Your task to perform on an android device: Go to accessibility settings Image 0: 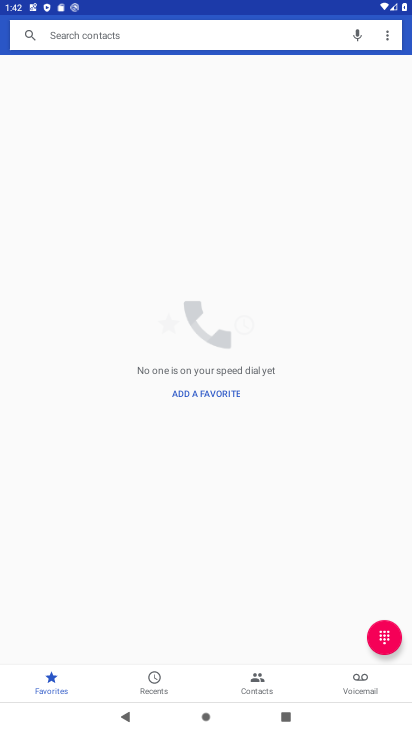
Step 0: press home button
Your task to perform on an android device: Go to accessibility settings Image 1: 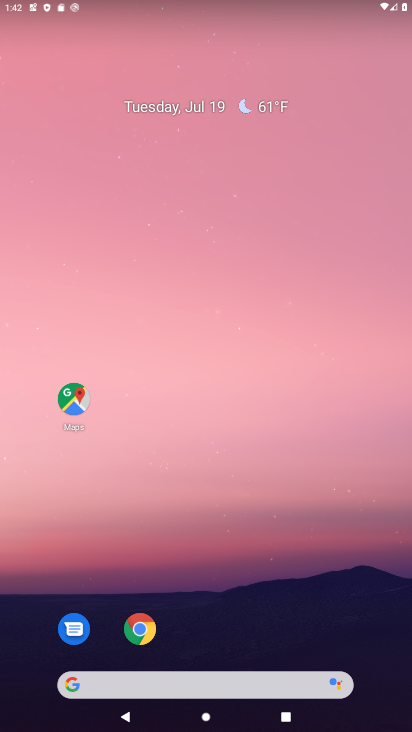
Step 1: drag from (204, 687) to (125, 0)
Your task to perform on an android device: Go to accessibility settings Image 2: 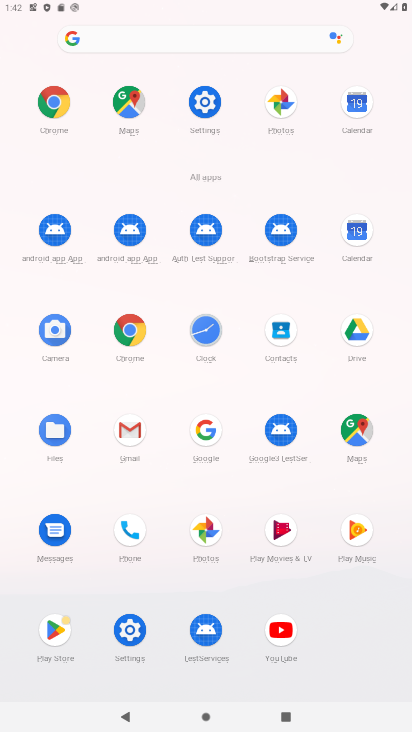
Step 2: click (127, 628)
Your task to perform on an android device: Go to accessibility settings Image 3: 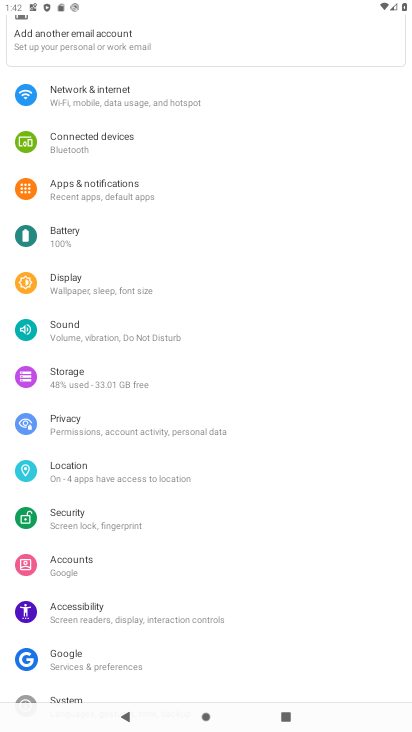
Step 3: click (100, 608)
Your task to perform on an android device: Go to accessibility settings Image 4: 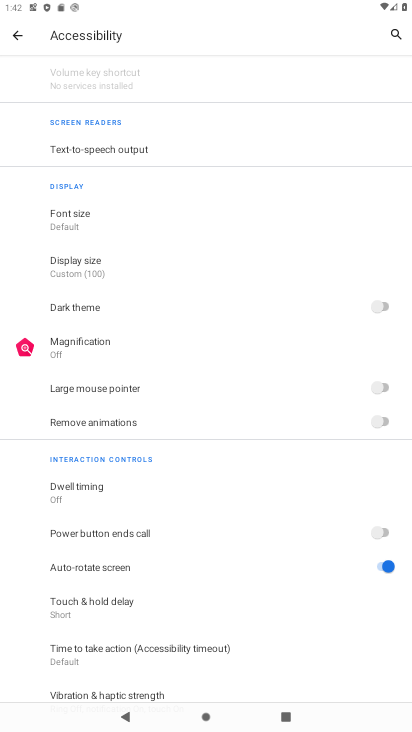
Step 4: task complete